Your task to perform on an android device: search for starred emails in the gmail app Image 0: 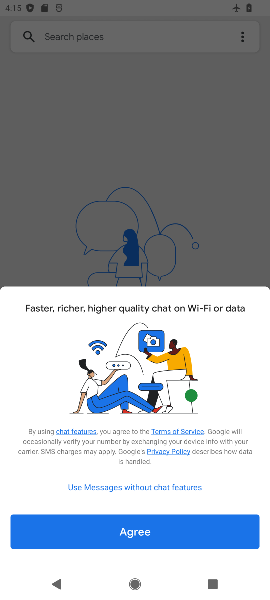
Step 0: press home button
Your task to perform on an android device: search for starred emails in the gmail app Image 1: 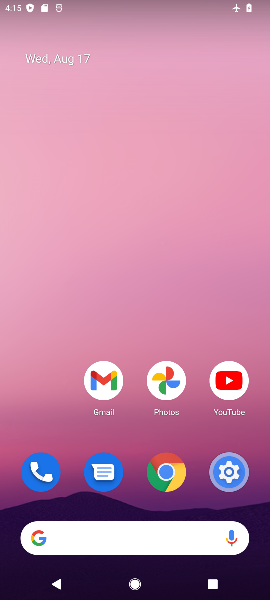
Step 1: click (106, 384)
Your task to perform on an android device: search for starred emails in the gmail app Image 2: 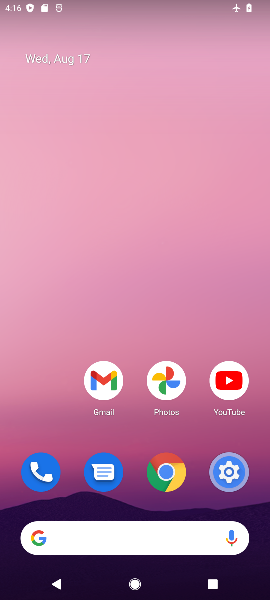
Step 2: click (107, 392)
Your task to perform on an android device: search for starred emails in the gmail app Image 3: 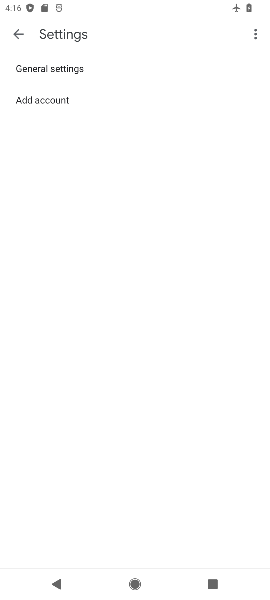
Step 3: click (22, 35)
Your task to perform on an android device: search for starred emails in the gmail app Image 4: 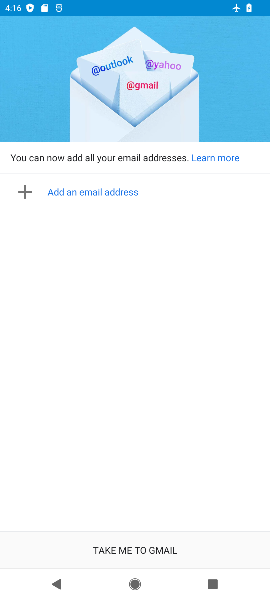
Step 4: press back button
Your task to perform on an android device: search for starred emails in the gmail app Image 5: 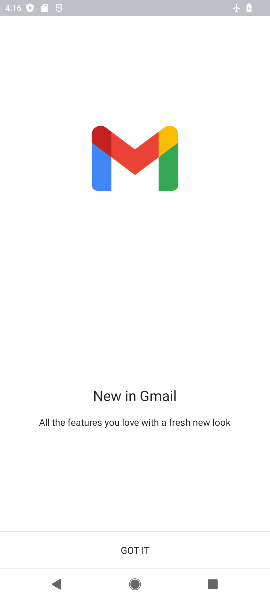
Step 5: click (129, 547)
Your task to perform on an android device: search for starred emails in the gmail app Image 6: 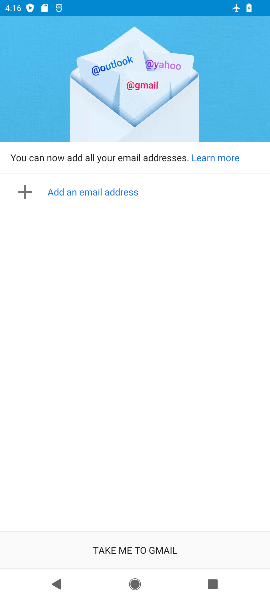
Step 6: task complete